Your task to perform on an android device: What's the weather going to be this weekend? Image 0: 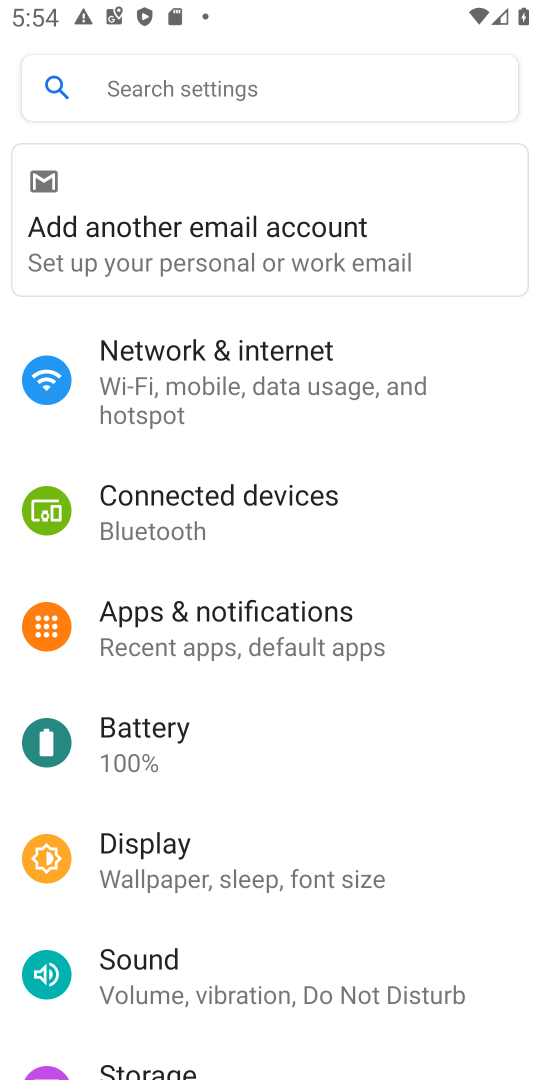
Step 0: press home button
Your task to perform on an android device: What's the weather going to be this weekend? Image 1: 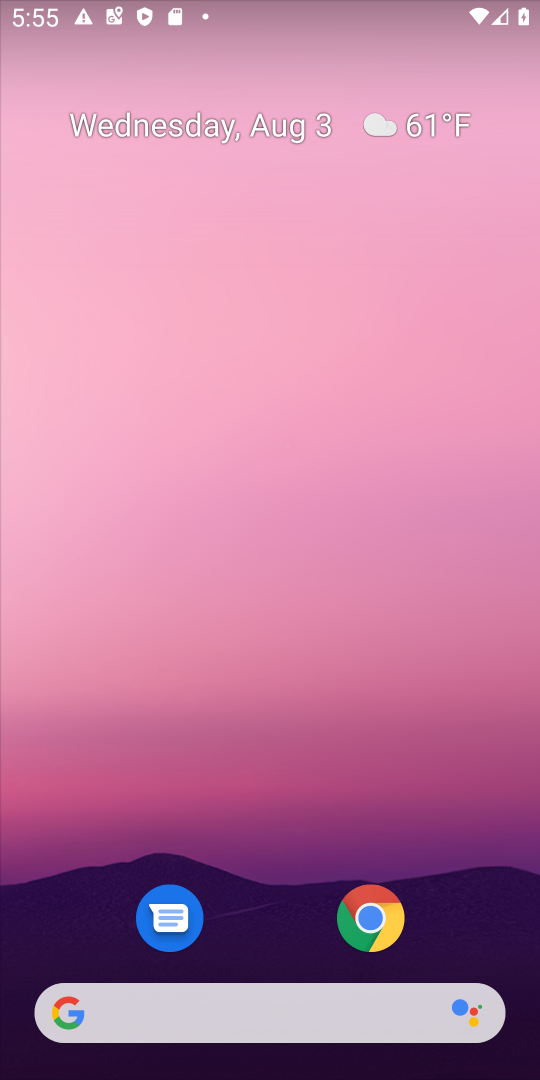
Step 1: click (207, 1017)
Your task to perform on an android device: What's the weather going to be this weekend? Image 2: 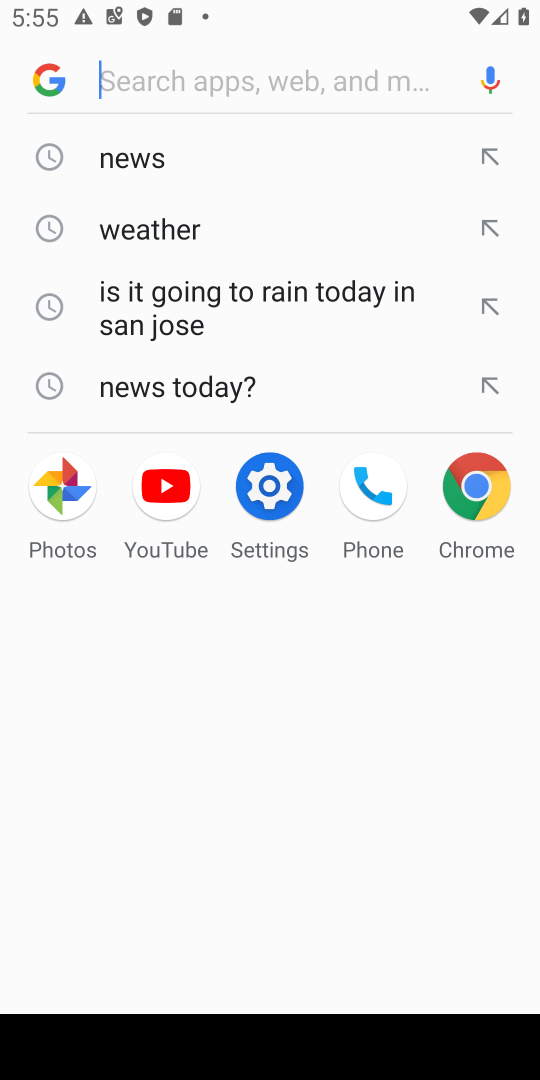
Step 2: type "what's the weather going to be this weekent"
Your task to perform on an android device: What's the weather going to be this weekend? Image 3: 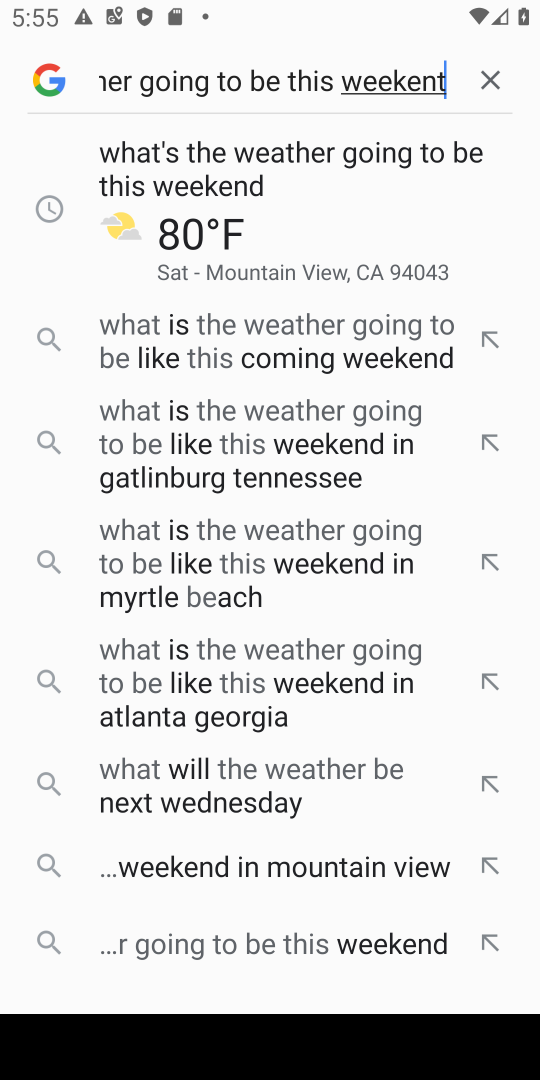
Step 3: click (294, 152)
Your task to perform on an android device: What's the weather going to be this weekend? Image 4: 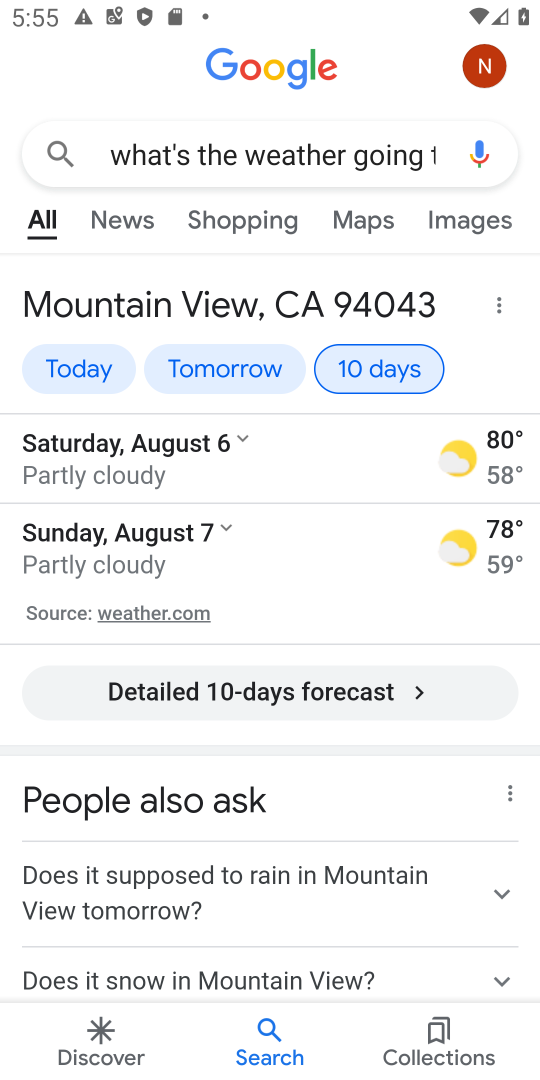
Step 4: task complete